Your task to perform on an android device: turn off picture-in-picture Image 0: 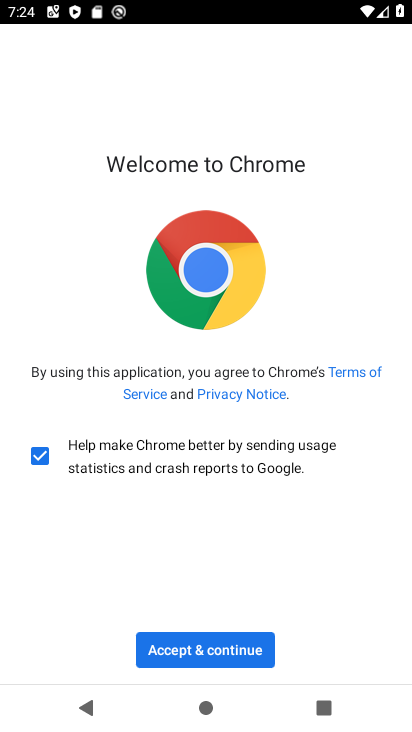
Step 0: press home button
Your task to perform on an android device: turn off picture-in-picture Image 1: 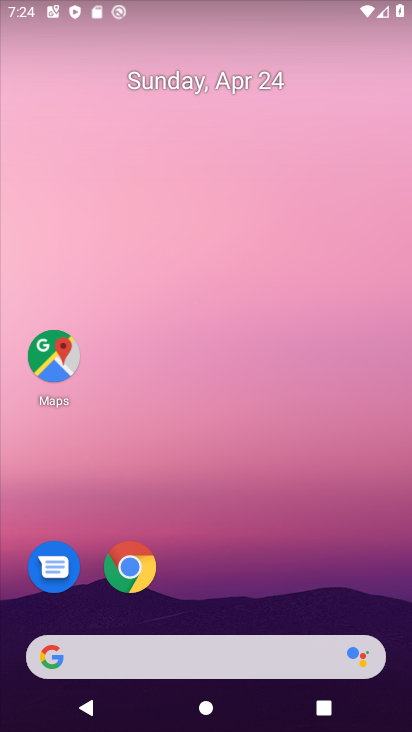
Step 1: drag from (144, 564) to (250, 454)
Your task to perform on an android device: turn off picture-in-picture Image 2: 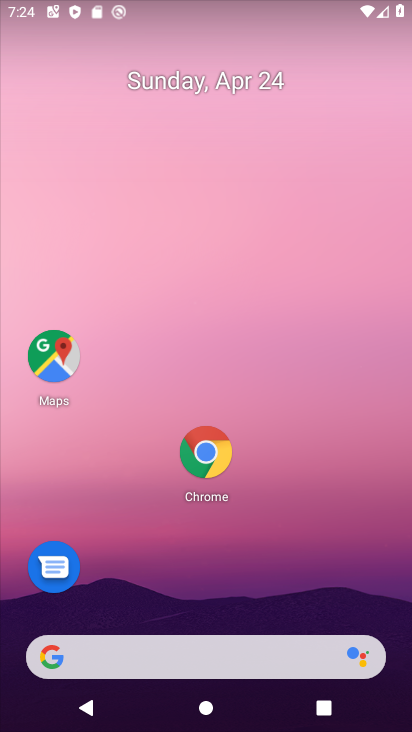
Step 2: click (212, 464)
Your task to perform on an android device: turn off picture-in-picture Image 3: 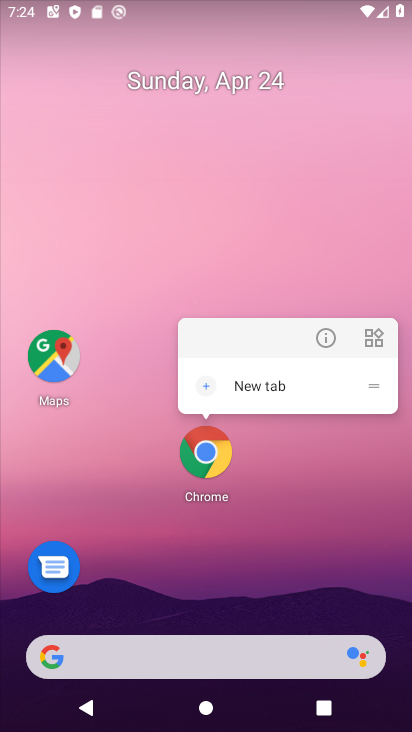
Step 3: click (323, 331)
Your task to perform on an android device: turn off picture-in-picture Image 4: 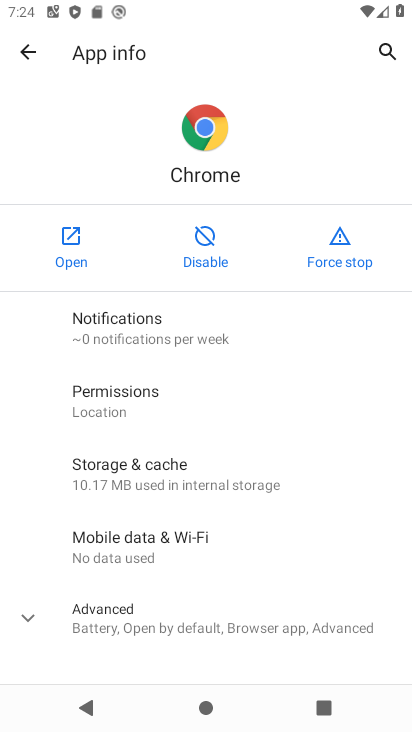
Step 4: drag from (271, 603) to (263, 276)
Your task to perform on an android device: turn off picture-in-picture Image 5: 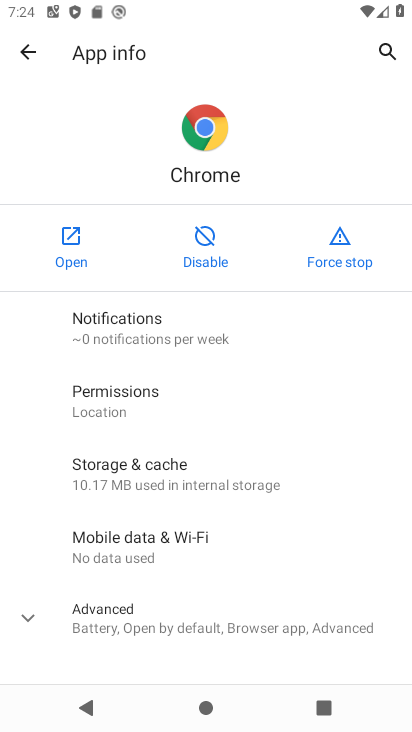
Step 5: drag from (206, 593) to (168, 175)
Your task to perform on an android device: turn off picture-in-picture Image 6: 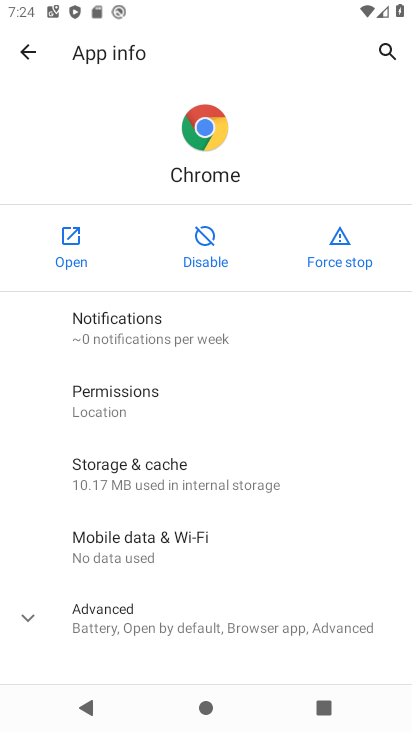
Step 6: click (132, 610)
Your task to perform on an android device: turn off picture-in-picture Image 7: 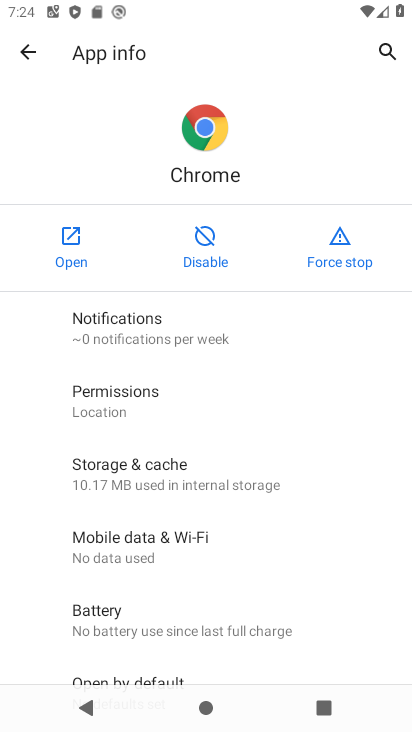
Step 7: drag from (132, 610) to (160, 271)
Your task to perform on an android device: turn off picture-in-picture Image 8: 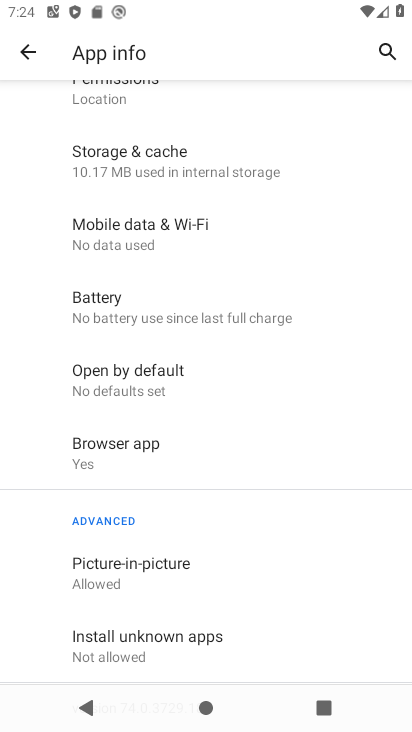
Step 8: drag from (210, 531) to (225, 214)
Your task to perform on an android device: turn off picture-in-picture Image 9: 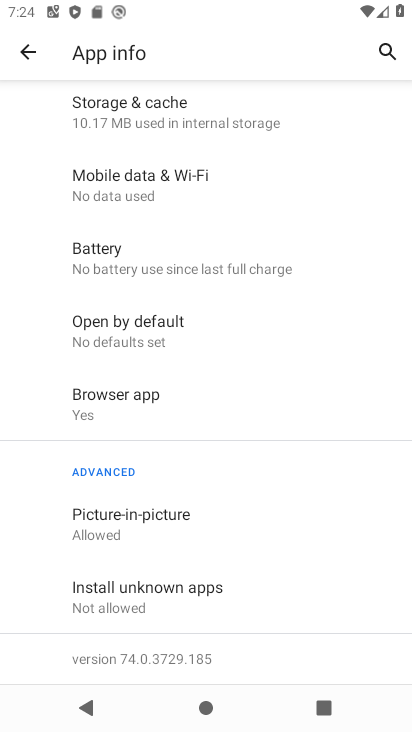
Step 9: click (133, 518)
Your task to perform on an android device: turn off picture-in-picture Image 10: 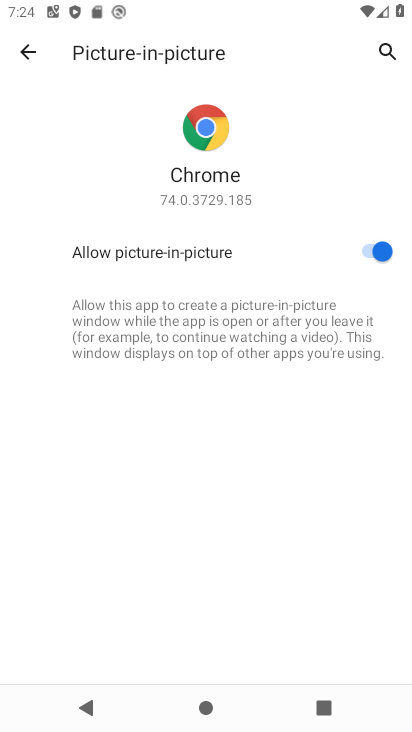
Step 10: click (369, 257)
Your task to perform on an android device: turn off picture-in-picture Image 11: 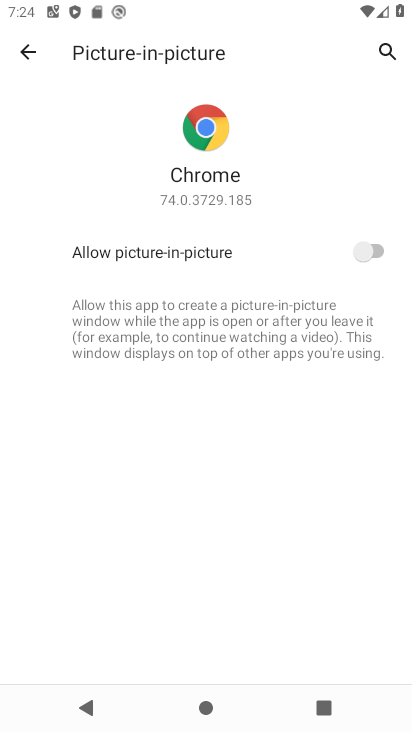
Step 11: task complete